Your task to perform on an android device: Turn on the flashlight Image 0: 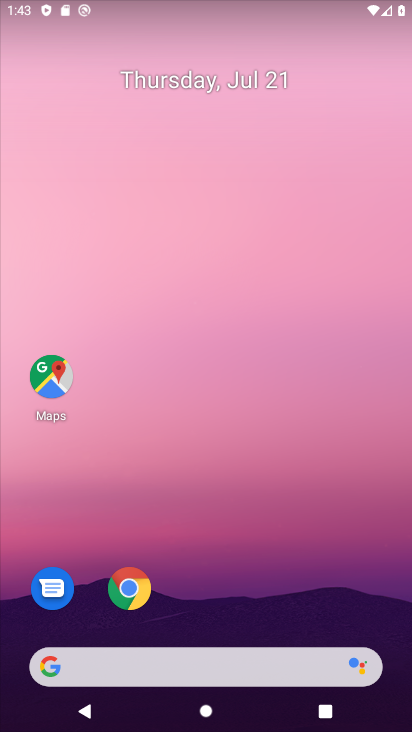
Step 0: click (364, 186)
Your task to perform on an android device: Turn on the flashlight Image 1: 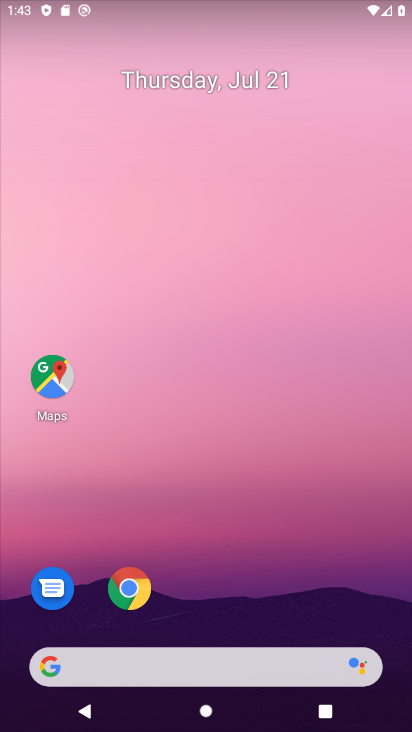
Step 1: drag from (186, 545) to (377, 7)
Your task to perform on an android device: Turn on the flashlight Image 2: 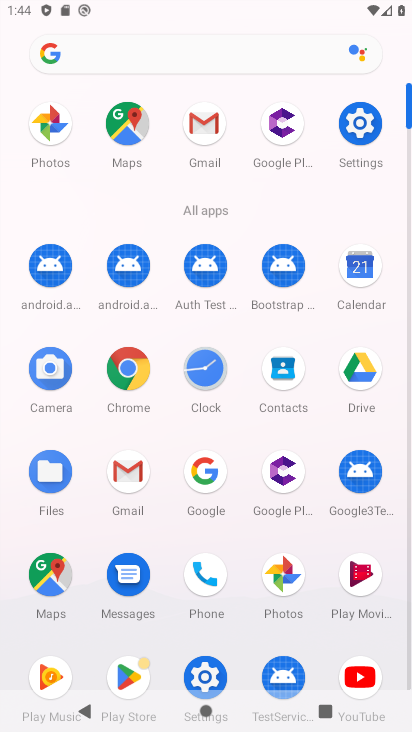
Step 2: click (368, 122)
Your task to perform on an android device: Turn on the flashlight Image 3: 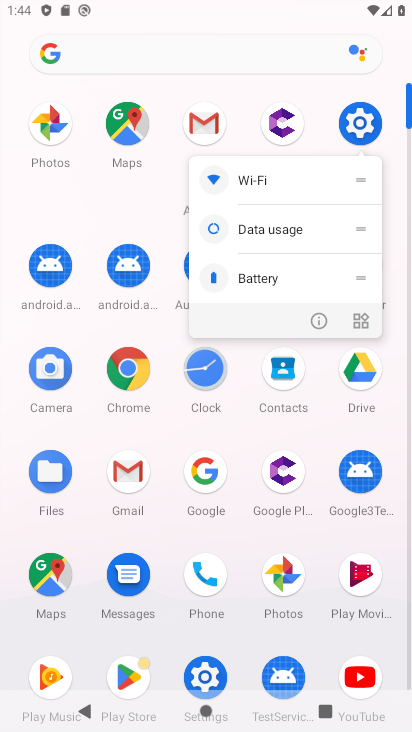
Step 3: click (313, 317)
Your task to perform on an android device: Turn on the flashlight Image 4: 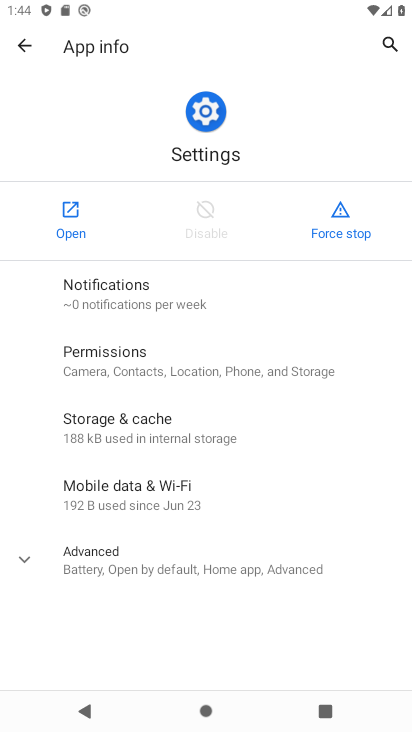
Step 4: click (63, 200)
Your task to perform on an android device: Turn on the flashlight Image 5: 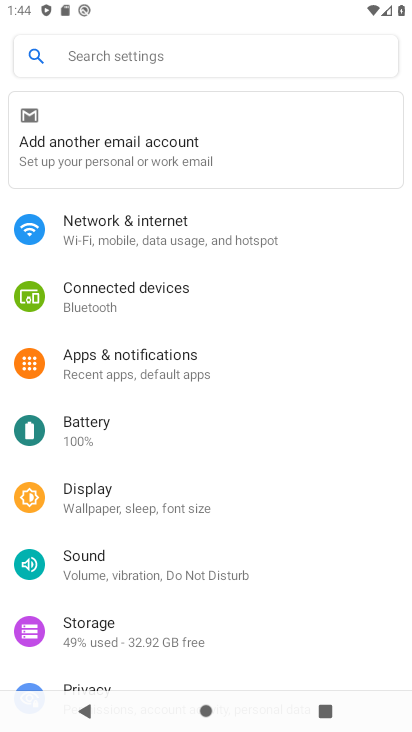
Step 5: click (118, 48)
Your task to perform on an android device: Turn on the flashlight Image 6: 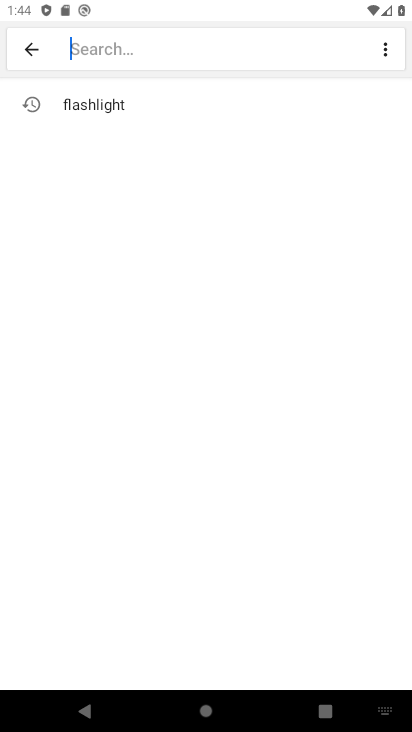
Step 6: click (80, 107)
Your task to perform on an android device: Turn on the flashlight Image 7: 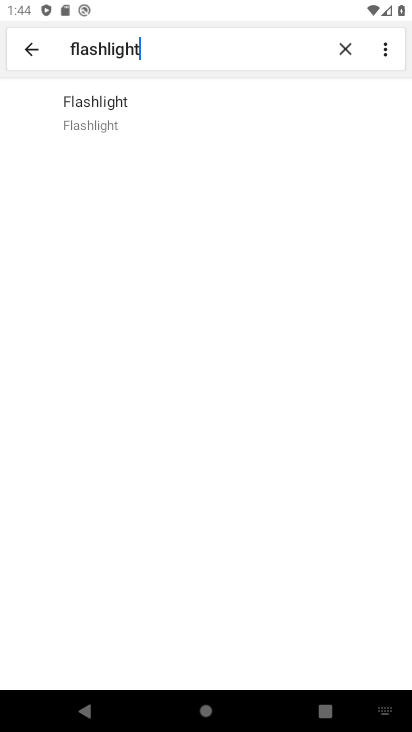
Step 7: click (122, 107)
Your task to perform on an android device: Turn on the flashlight Image 8: 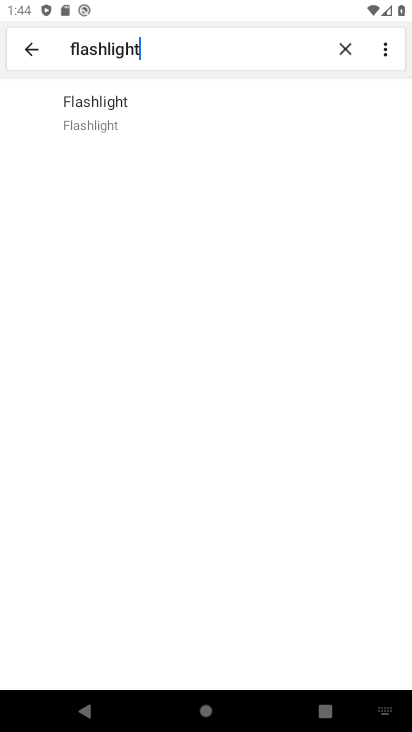
Step 8: task complete